Your task to perform on an android device: Go to privacy settings Image 0: 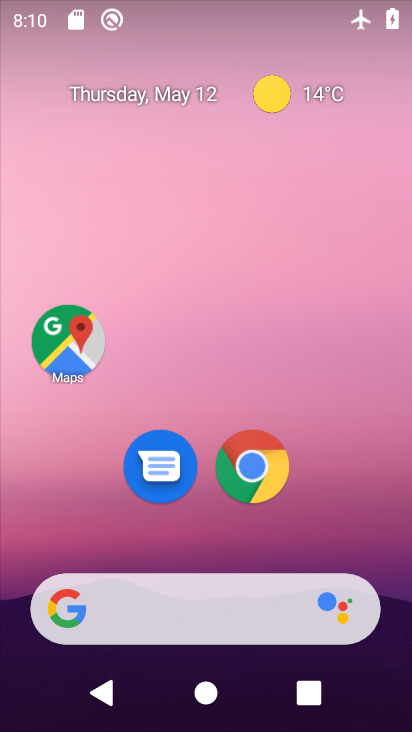
Step 0: press home button
Your task to perform on an android device: Go to privacy settings Image 1: 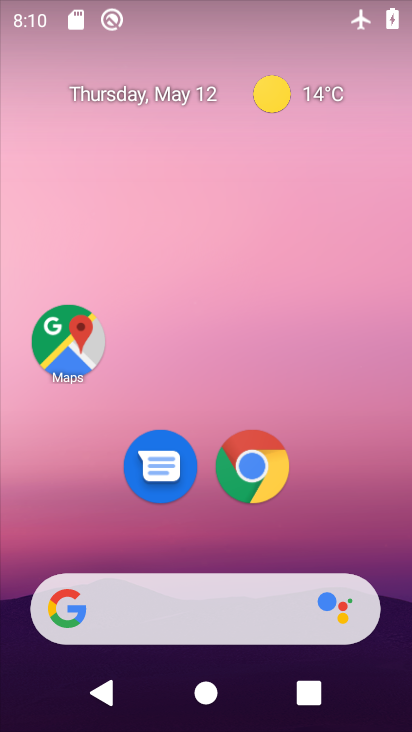
Step 1: drag from (206, 536) to (250, 41)
Your task to perform on an android device: Go to privacy settings Image 2: 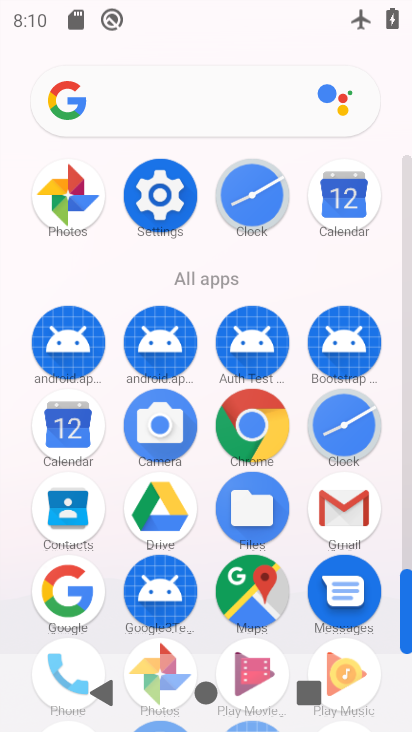
Step 2: click (148, 188)
Your task to perform on an android device: Go to privacy settings Image 3: 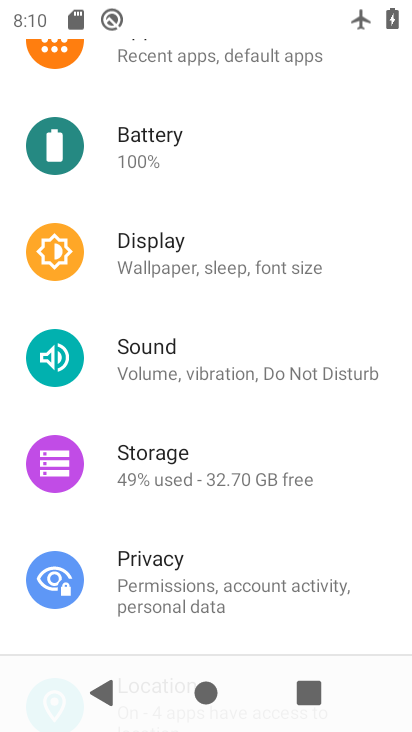
Step 3: click (160, 591)
Your task to perform on an android device: Go to privacy settings Image 4: 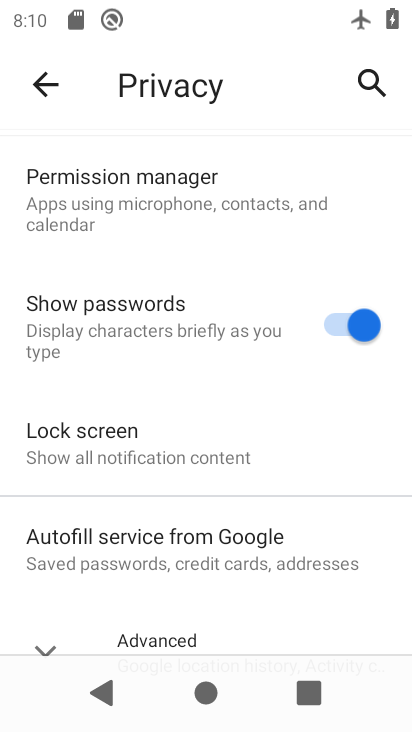
Step 4: click (62, 636)
Your task to perform on an android device: Go to privacy settings Image 5: 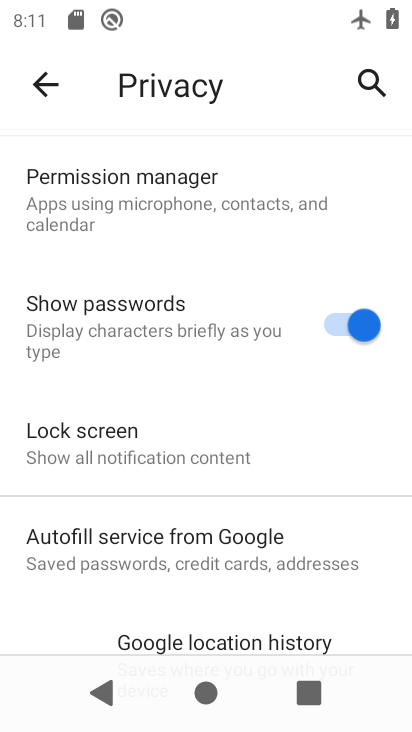
Step 5: task complete